Your task to perform on an android device: add a label to a message in the gmail app Image 0: 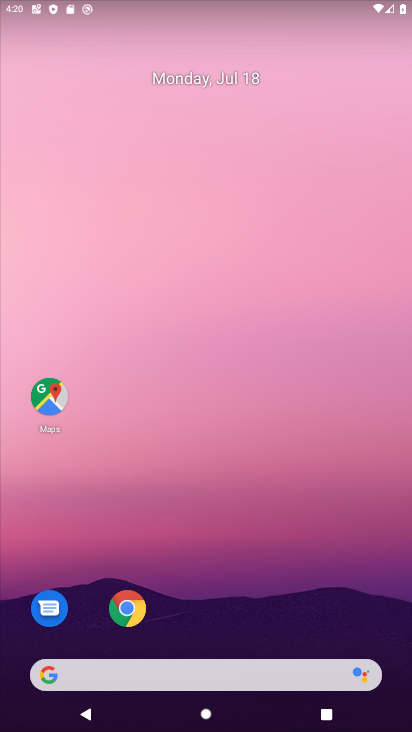
Step 0: drag from (260, 602) to (211, 3)
Your task to perform on an android device: add a label to a message in the gmail app Image 1: 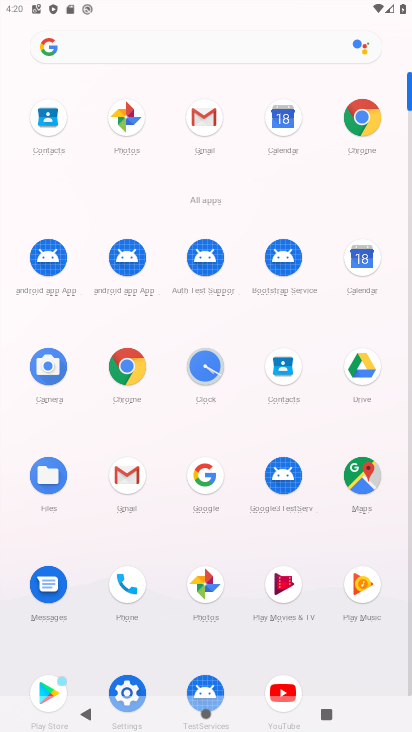
Step 1: click (210, 148)
Your task to perform on an android device: add a label to a message in the gmail app Image 2: 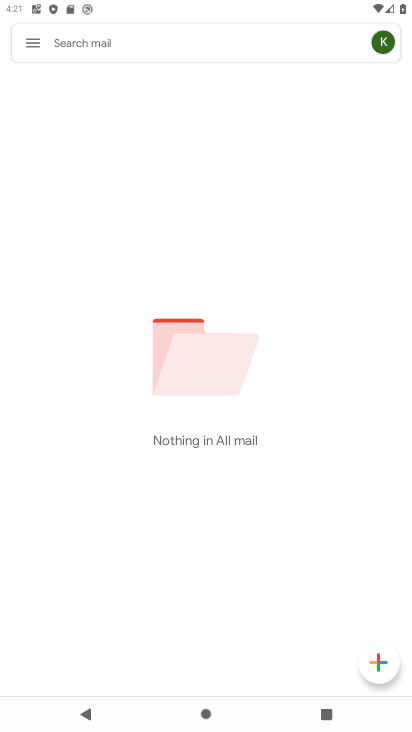
Step 2: task complete